Your task to perform on an android device: see creations saved in the google photos Image 0: 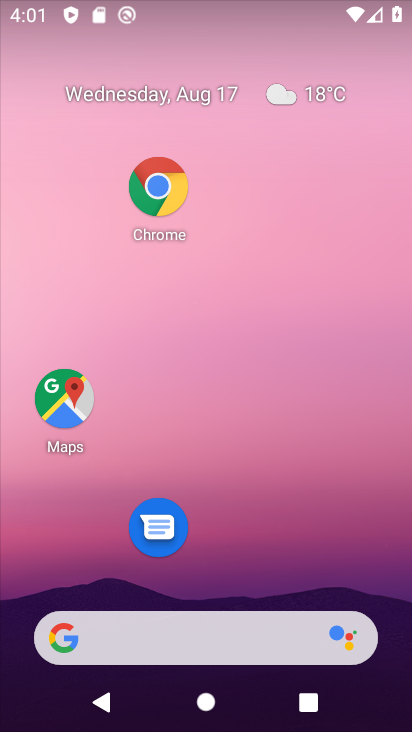
Step 0: drag from (224, 600) to (250, 7)
Your task to perform on an android device: see creations saved in the google photos Image 1: 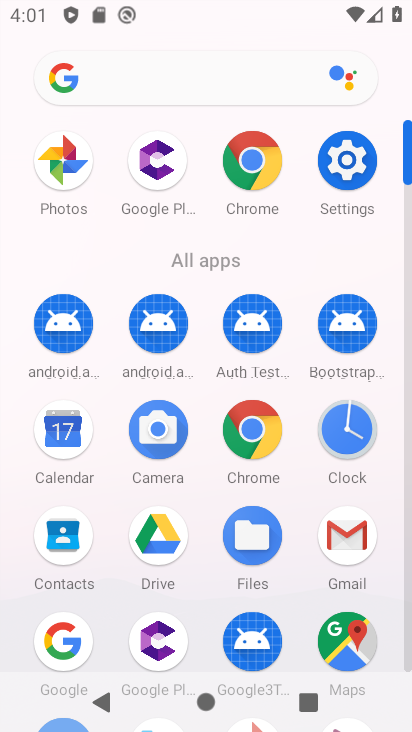
Step 1: click (63, 173)
Your task to perform on an android device: see creations saved in the google photos Image 2: 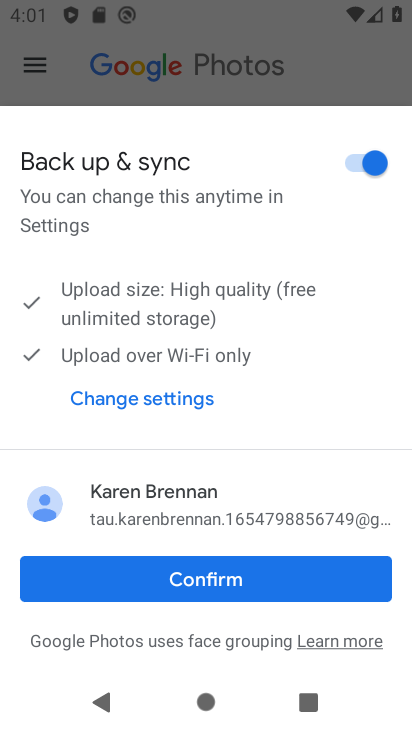
Step 2: click (206, 576)
Your task to perform on an android device: see creations saved in the google photos Image 3: 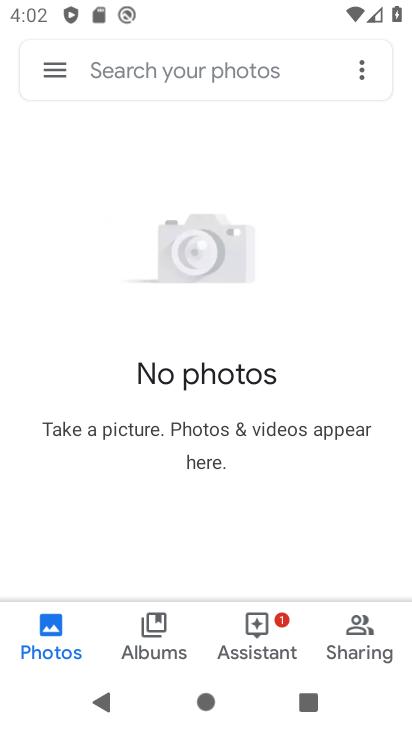
Step 3: task complete